Your task to perform on an android device: turn pop-ups off in chrome Image 0: 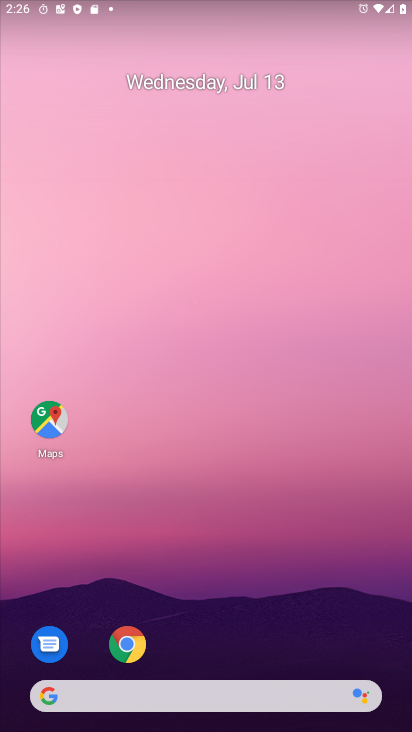
Step 0: click (131, 642)
Your task to perform on an android device: turn pop-ups off in chrome Image 1: 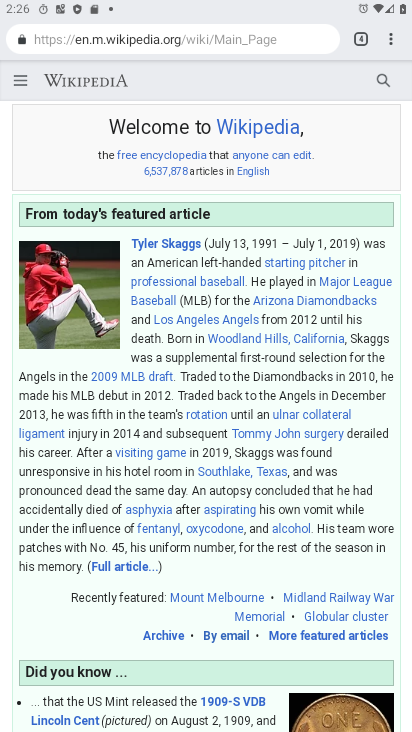
Step 1: drag from (388, 32) to (255, 469)
Your task to perform on an android device: turn pop-ups off in chrome Image 2: 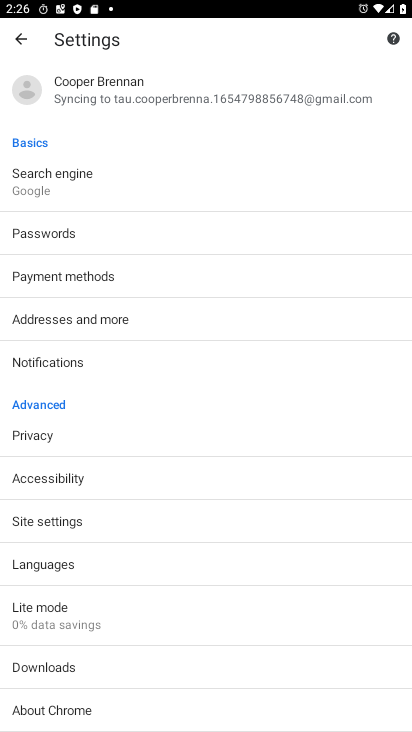
Step 2: click (89, 508)
Your task to perform on an android device: turn pop-ups off in chrome Image 3: 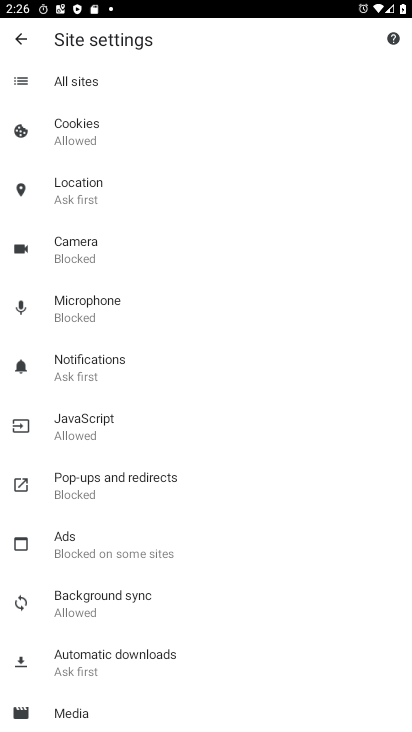
Step 3: click (103, 486)
Your task to perform on an android device: turn pop-ups off in chrome Image 4: 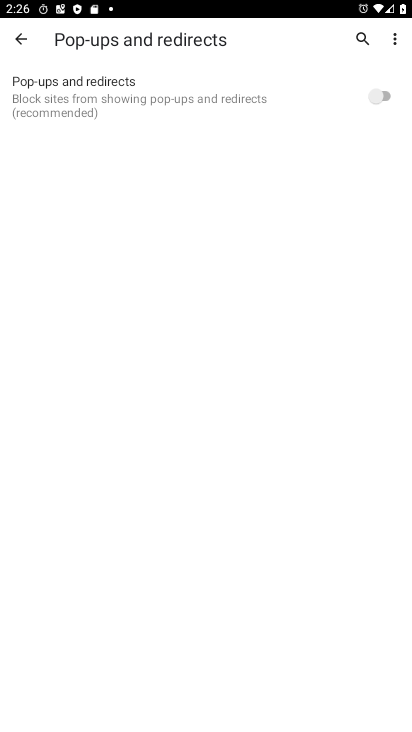
Step 4: task complete